Your task to perform on an android device: See recent photos Image 0: 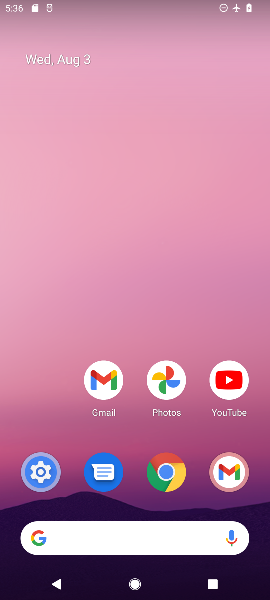
Step 0: drag from (197, 499) to (60, 39)
Your task to perform on an android device: See recent photos Image 1: 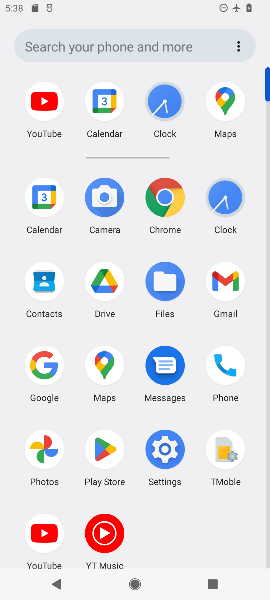
Step 1: click (39, 468)
Your task to perform on an android device: See recent photos Image 2: 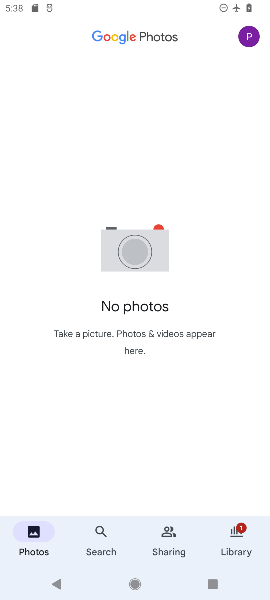
Step 2: task complete